Your task to perform on an android device: toggle airplane mode Image 0: 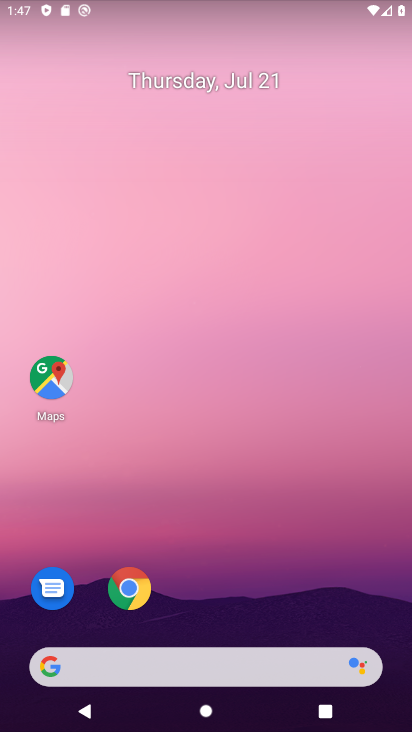
Step 0: press home button
Your task to perform on an android device: toggle airplane mode Image 1: 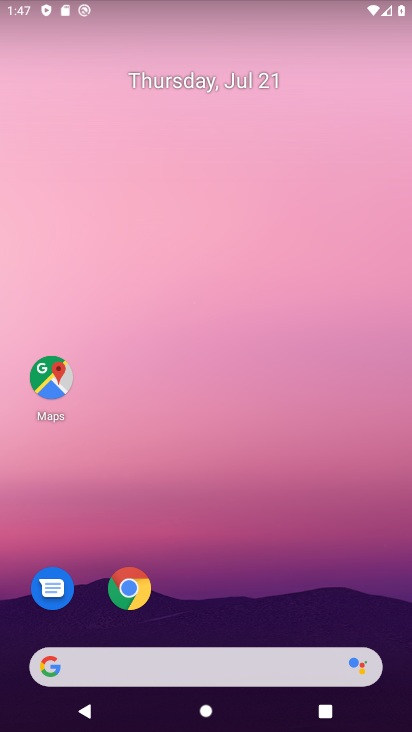
Step 1: click (100, 45)
Your task to perform on an android device: toggle airplane mode Image 2: 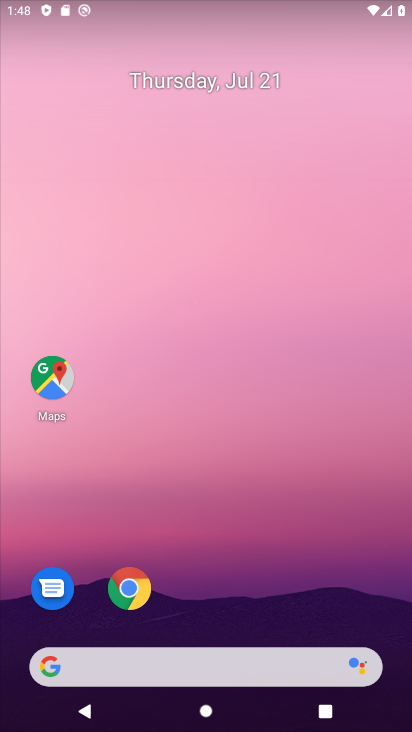
Step 2: drag from (372, 2) to (378, 602)
Your task to perform on an android device: toggle airplane mode Image 3: 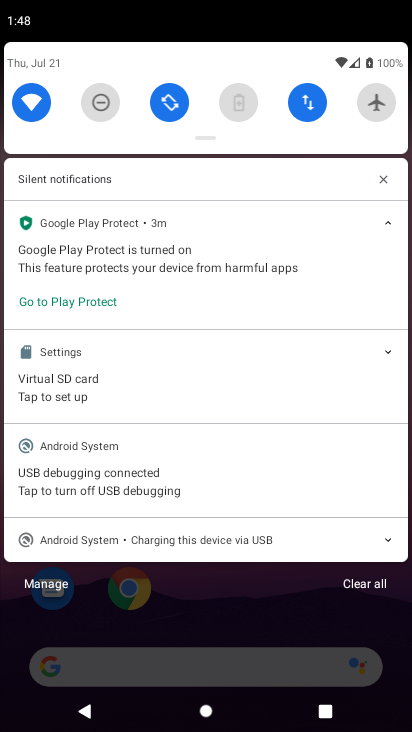
Step 3: click (385, 101)
Your task to perform on an android device: toggle airplane mode Image 4: 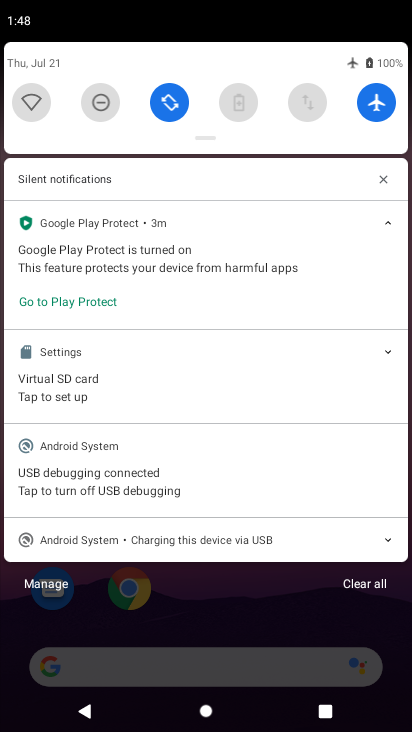
Step 4: task complete